Your task to perform on an android device: Search for "usb-c" on costco.com, select the first entry, and add it to the cart. Image 0: 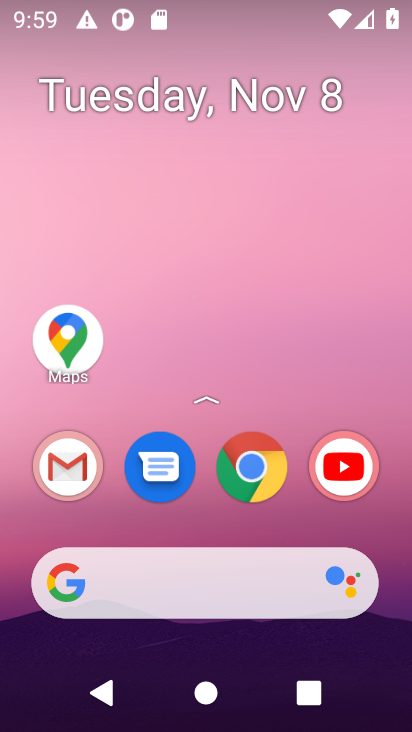
Step 0: click (264, 599)
Your task to perform on an android device: Search for "usb-c" on costco.com, select the first entry, and add it to the cart. Image 1: 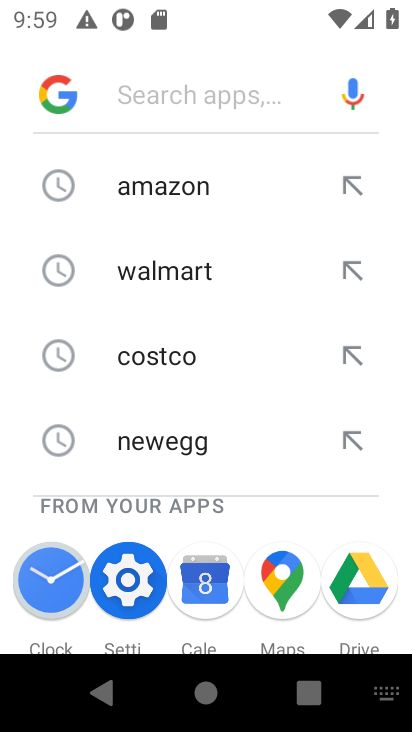
Step 1: click (240, 366)
Your task to perform on an android device: Search for "usb-c" on costco.com, select the first entry, and add it to the cart. Image 2: 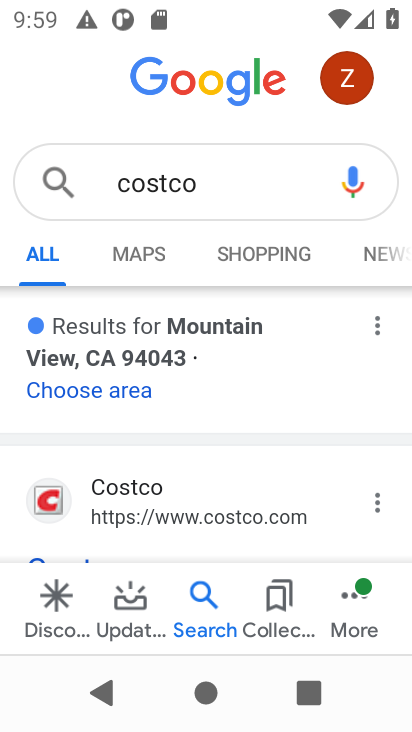
Step 2: click (228, 493)
Your task to perform on an android device: Search for "usb-c" on costco.com, select the first entry, and add it to the cart. Image 3: 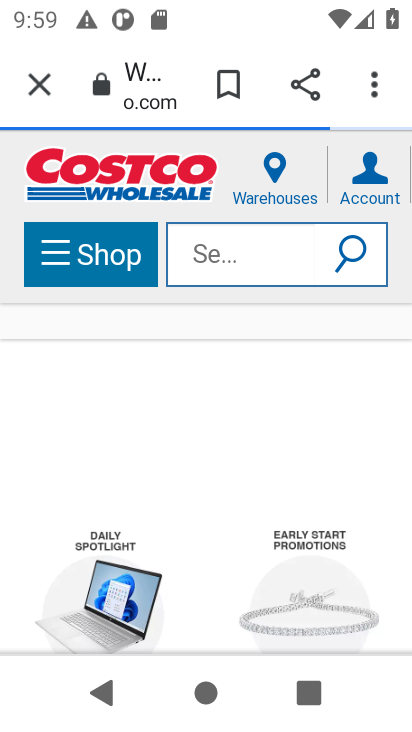
Step 3: click (223, 259)
Your task to perform on an android device: Search for "usb-c" on costco.com, select the first entry, and add it to the cart. Image 4: 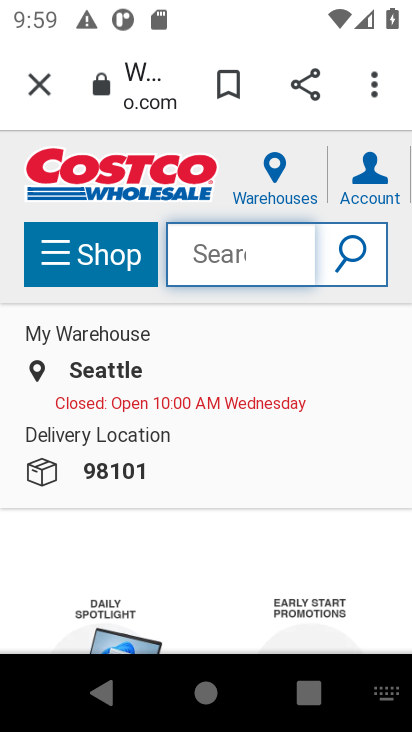
Step 4: type "usb-c"
Your task to perform on an android device: Search for "usb-c" on costco.com, select the first entry, and add it to the cart. Image 5: 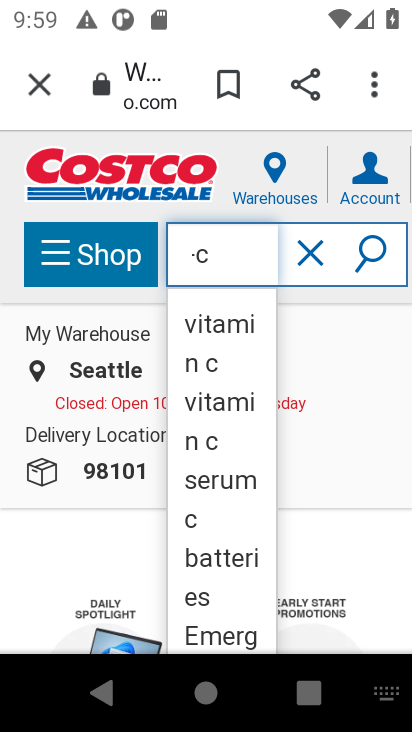
Step 5: click (357, 245)
Your task to perform on an android device: Search for "usb-c" on costco.com, select the first entry, and add it to the cart. Image 6: 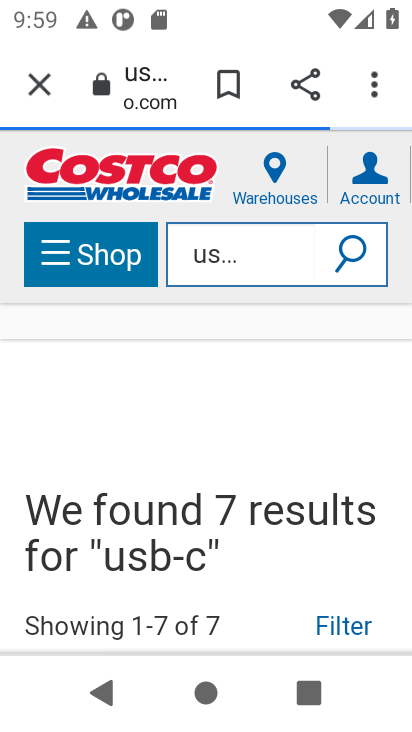
Step 6: task complete